Your task to perform on an android device: Open Google Image 0: 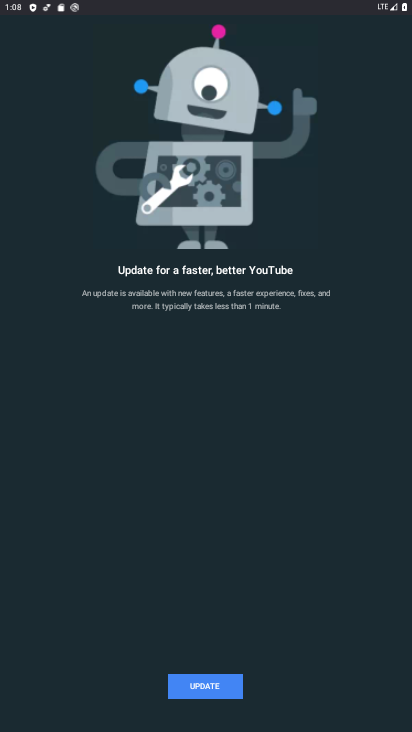
Step 0: press home button
Your task to perform on an android device: Open Google Image 1: 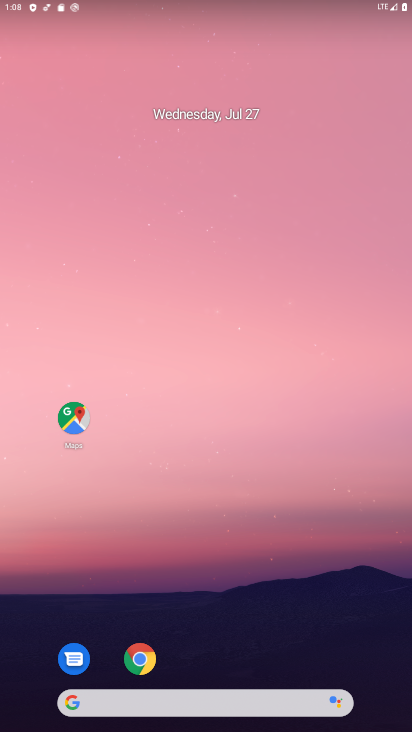
Step 1: drag from (222, 728) to (221, 186)
Your task to perform on an android device: Open Google Image 2: 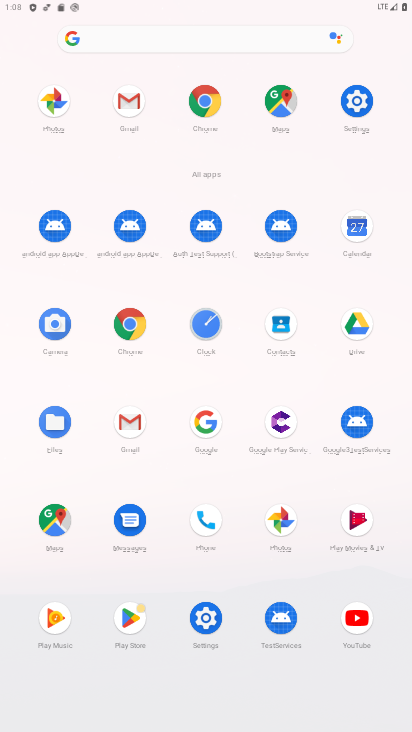
Step 2: click (201, 423)
Your task to perform on an android device: Open Google Image 3: 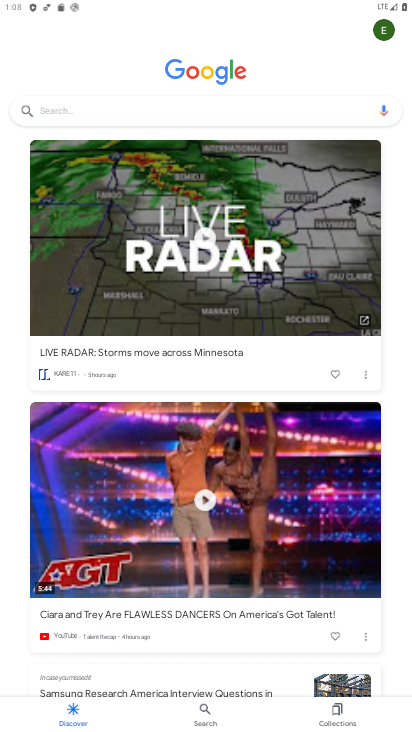
Step 3: task complete